Your task to perform on an android device: Open calendar and show me the third week of next month Image 0: 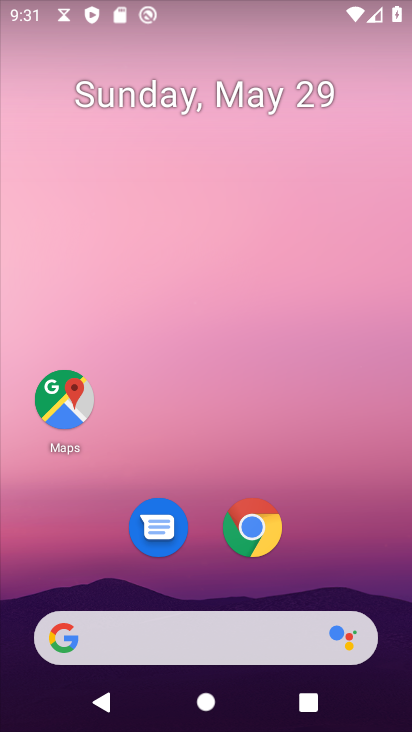
Step 0: press home button
Your task to perform on an android device: Open calendar and show me the third week of next month Image 1: 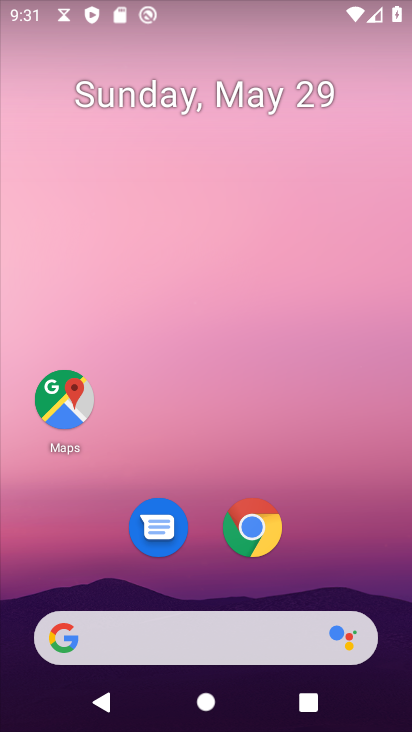
Step 1: drag from (137, 635) to (288, 48)
Your task to perform on an android device: Open calendar and show me the third week of next month Image 2: 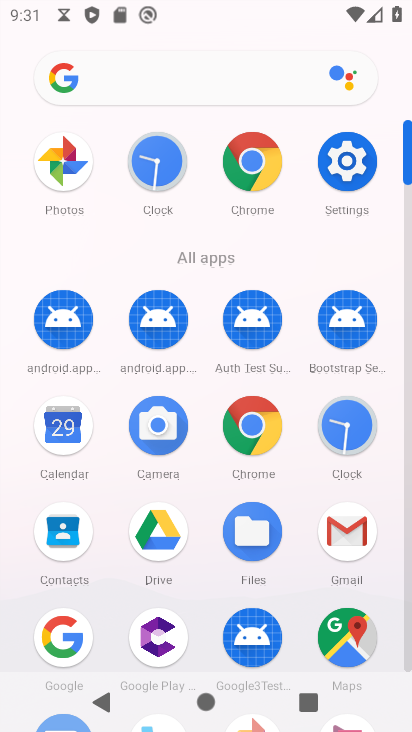
Step 2: click (62, 436)
Your task to perform on an android device: Open calendar and show me the third week of next month Image 3: 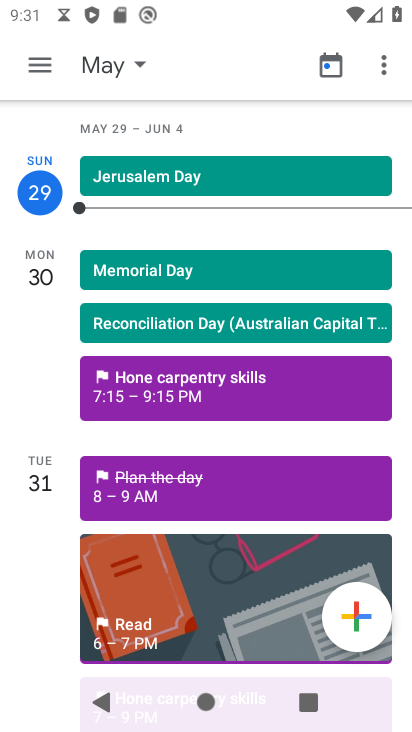
Step 3: click (95, 69)
Your task to perform on an android device: Open calendar and show me the third week of next month Image 4: 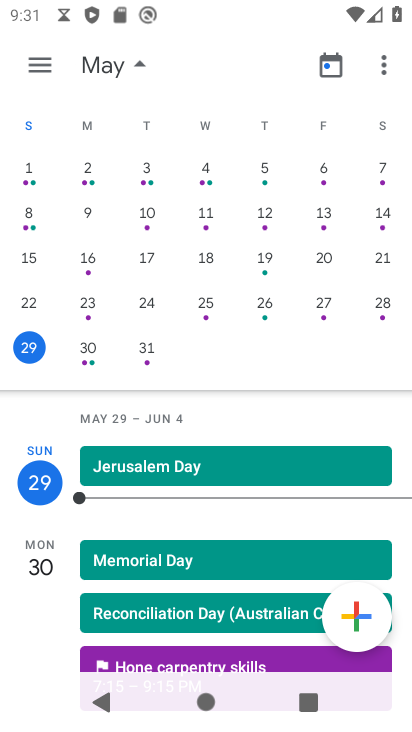
Step 4: drag from (364, 267) to (3, 261)
Your task to perform on an android device: Open calendar and show me the third week of next month Image 5: 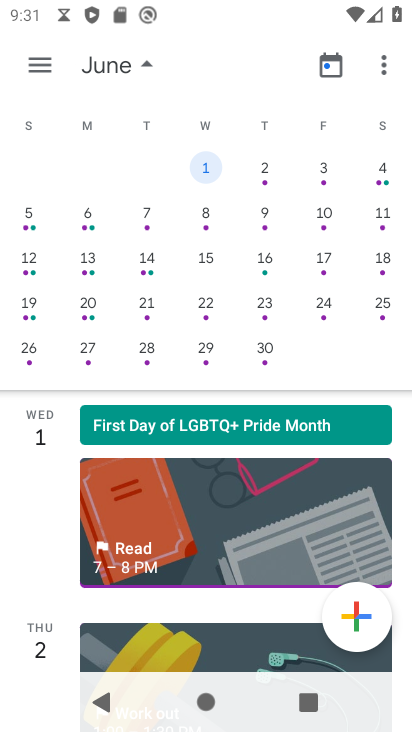
Step 5: click (28, 262)
Your task to perform on an android device: Open calendar and show me the third week of next month Image 6: 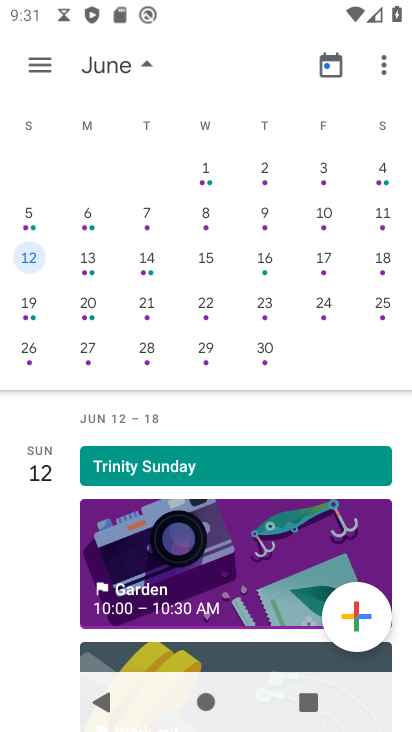
Step 6: click (38, 61)
Your task to perform on an android device: Open calendar and show me the third week of next month Image 7: 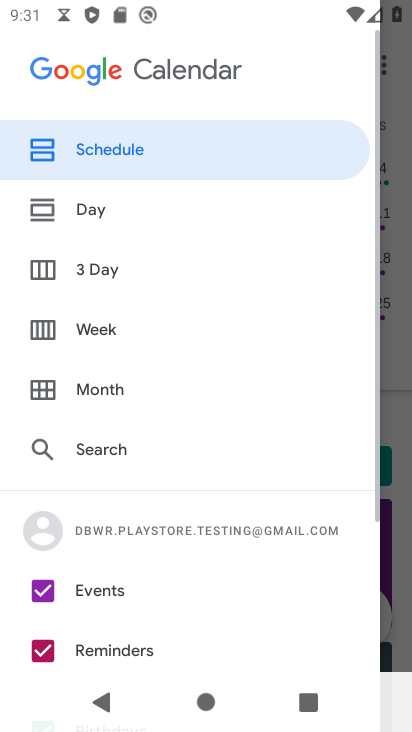
Step 7: click (116, 328)
Your task to perform on an android device: Open calendar and show me the third week of next month Image 8: 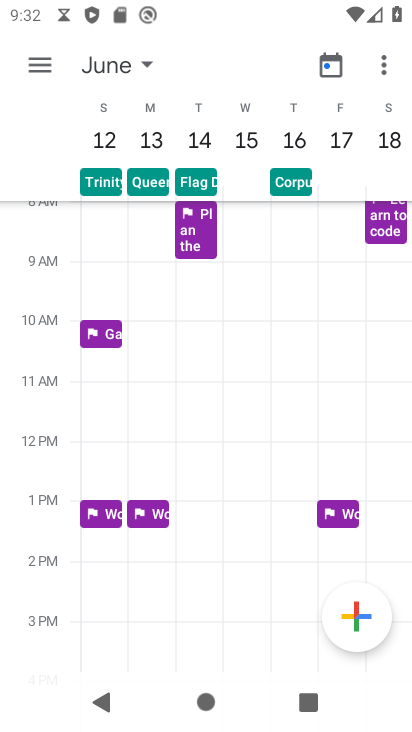
Step 8: task complete